Your task to perform on an android device: Open maps Image 0: 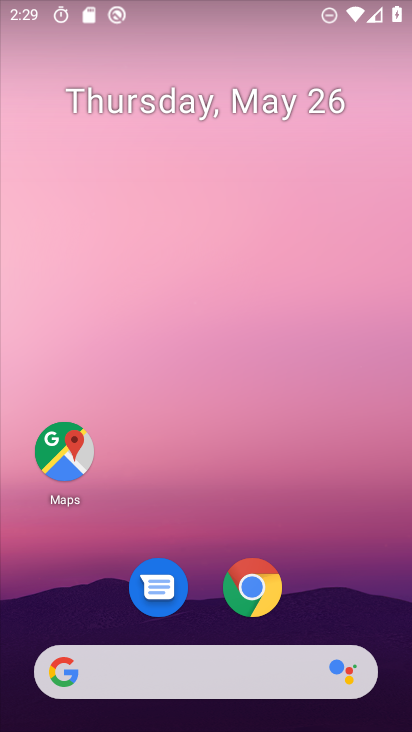
Step 0: click (58, 446)
Your task to perform on an android device: Open maps Image 1: 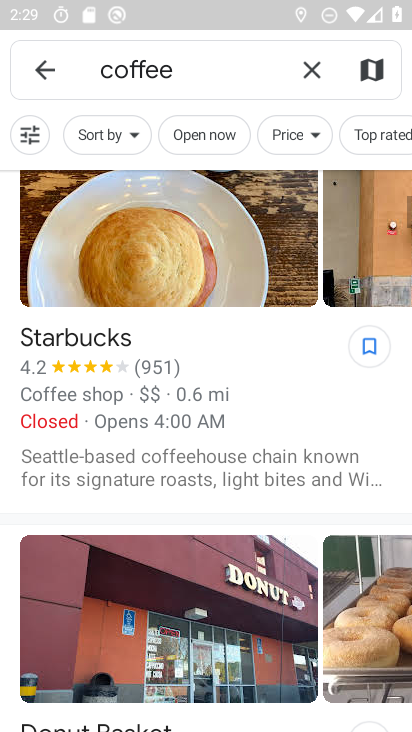
Step 1: task complete